Your task to perform on an android device: choose inbox layout in the gmail app Image 0: 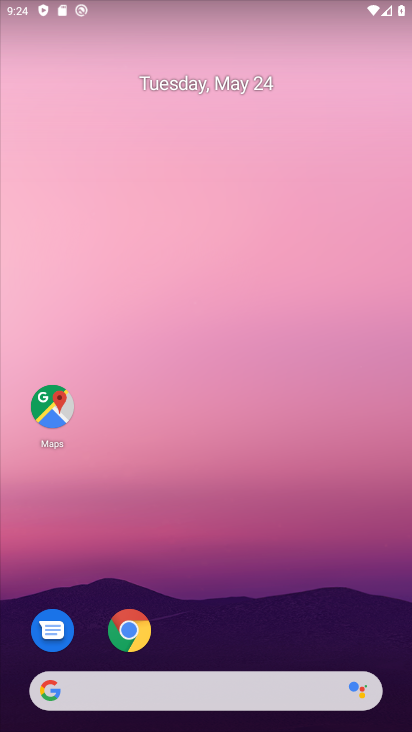
Step 0: press home button
Your task to perform on an android device: choose inbox layout in the gmail app Image 1: 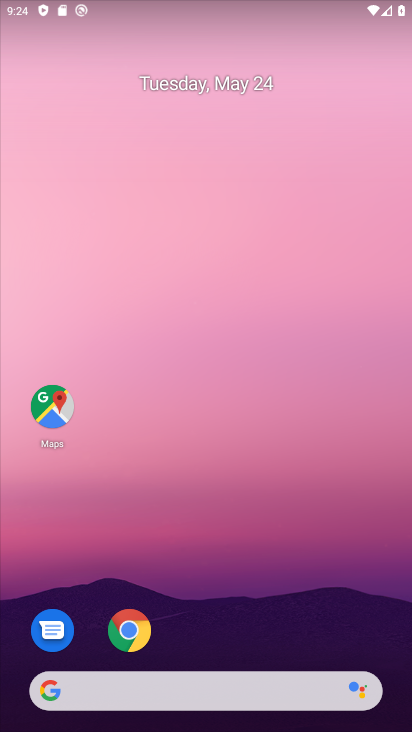
Step 1: drag from (213, 651) to (223, 174)
Your task to perform on an android device: choose inbox layout in the gmail app Image 2: 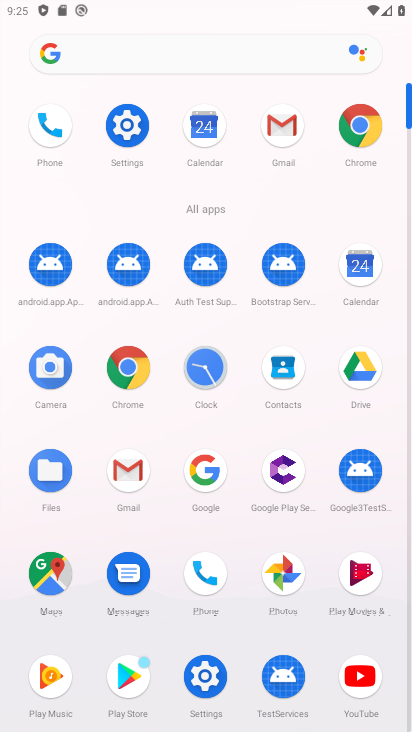
Step 2: click (121, 464)
Your task to perform on an android device: choose inbox layout in the gmail app Image 3: 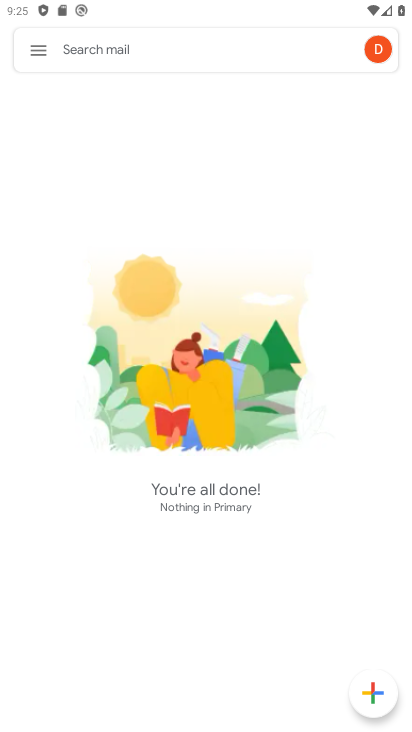
Step 3: click (26, 49)
Your task to perform on an android device: choose inbox layout in the gmail app Image 4: 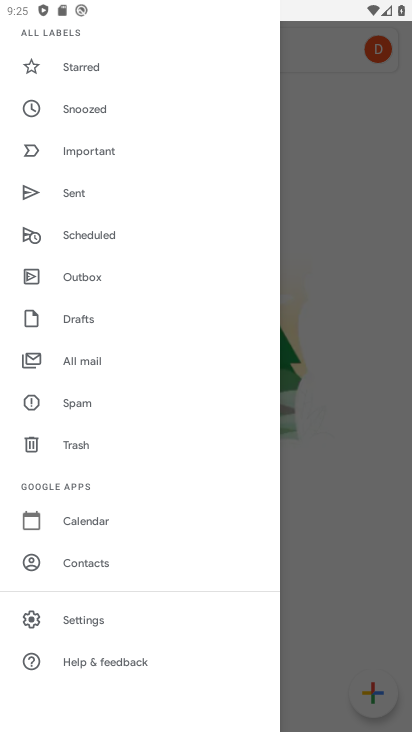
Step 4: click (110, 612)
Your task to perform on an android device: choose inbox layout in the gmail app Image 5: 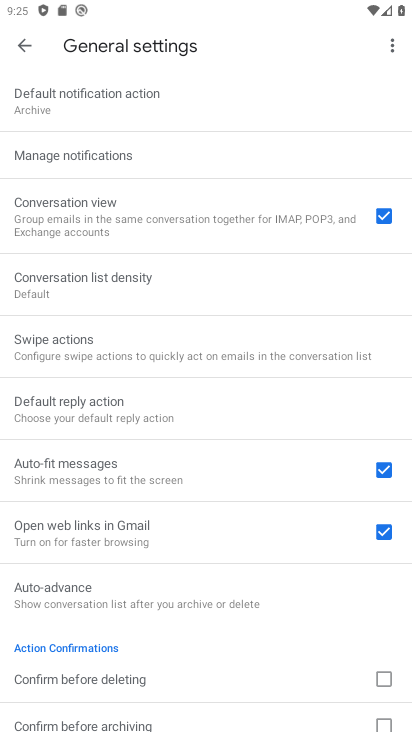
Step 5: click (18, 46)
Your task to perform on an android device: choose inbox layout in the gmail app Image 6: 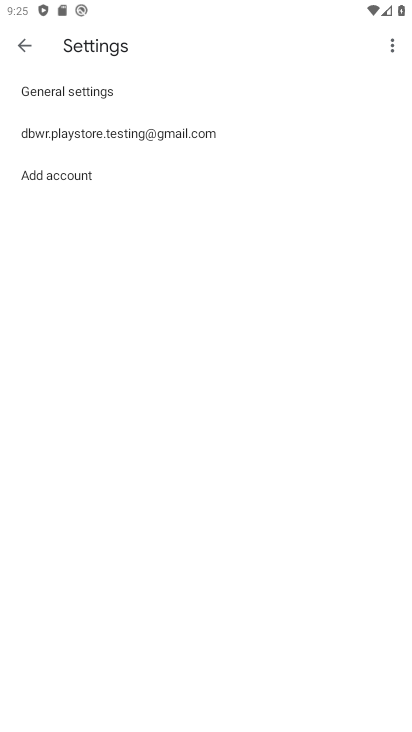
Step 6: click (140, 131)
Your task to perform on an android device: choose inbox layout in the gmail app Image 7: 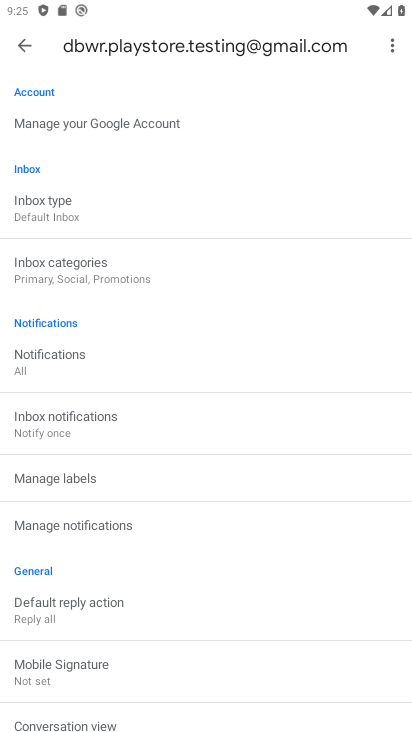
Step 7: click (89, 210)
Your task to perform on an android device: choose inbox layout in the gmail app Image 8: 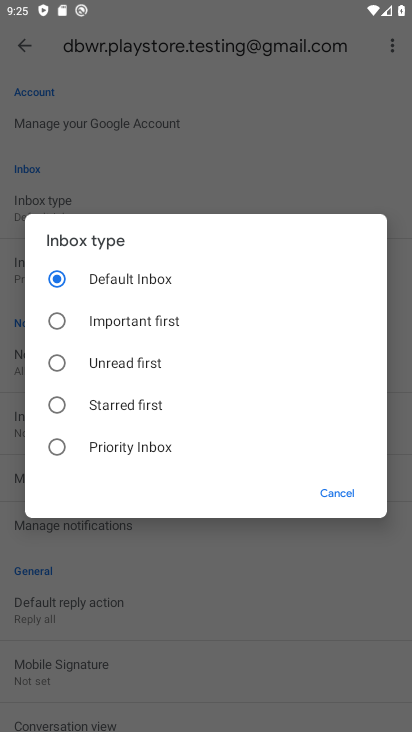
Step 8: click (55, 444)
Your task to perform on an android device: choose inbox layout in the gmail app Image 9: 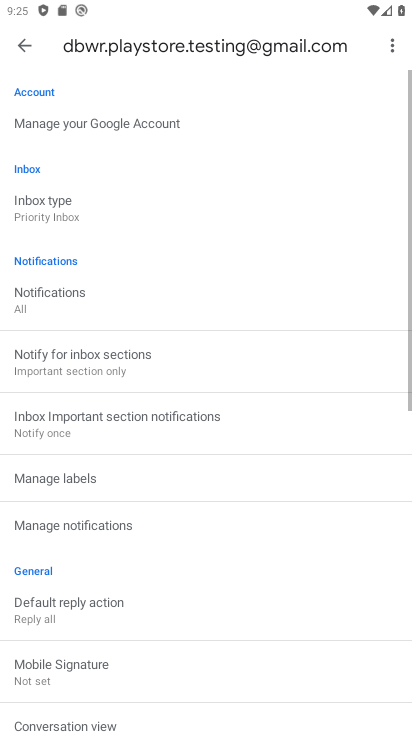
Step 9: task complete